Your task to perform on an android device: turn on the 12-hour format for clock Image 0: 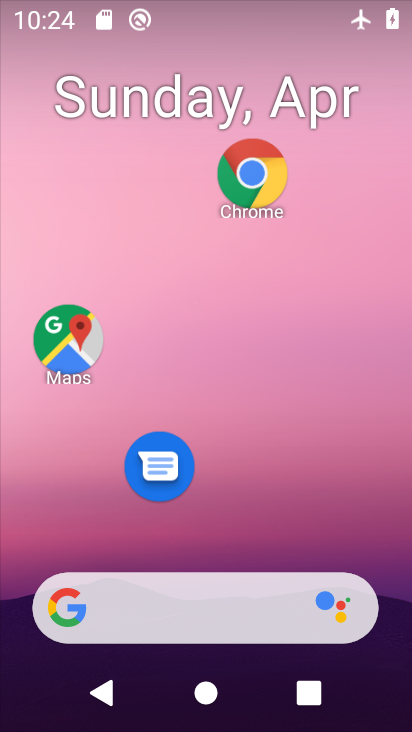
Step 0: drag from (384, 508) to (405, 205)
Your task to perform on an android device: turn on the 12-hour format for clock Image 1: 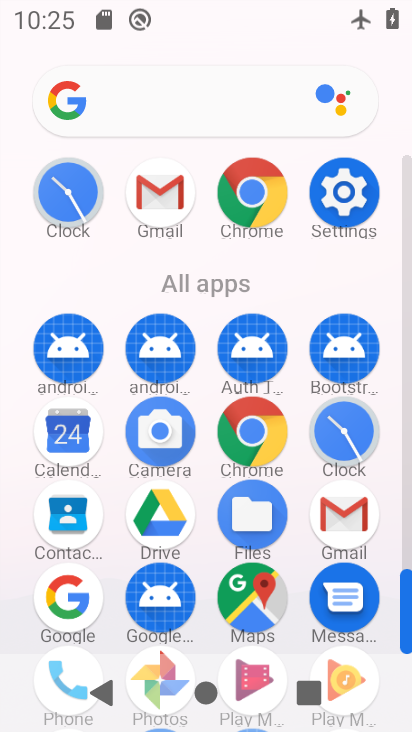
Step 1: click (355, 192)
Your task to perform on an android device: turn on the 12-hour format for clock Image 2: 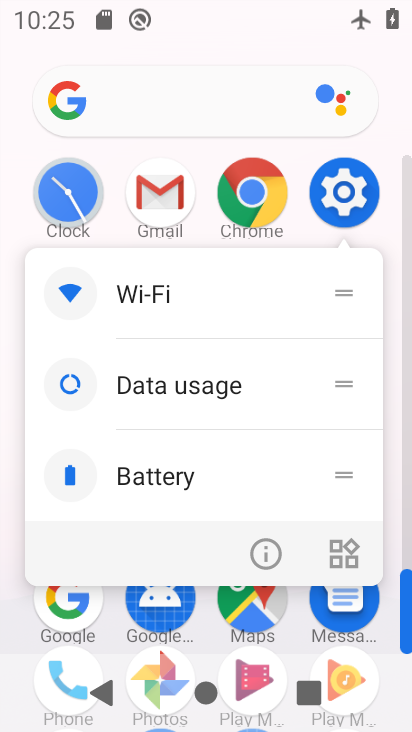
Step 2: click (355, 191)
Your task to perform on an android device: turn on the 12-hour format for clock Image 3: 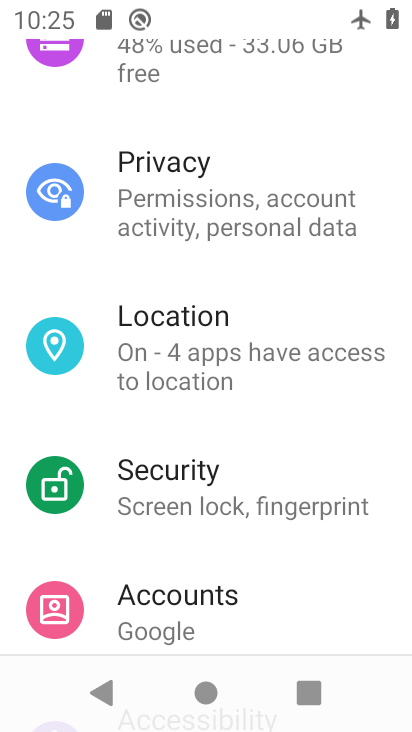
Step 3: drag from (271, 611) to (278, 159)
Your task to perform on an android device: turn on the 12-hour format for clock Image 4: 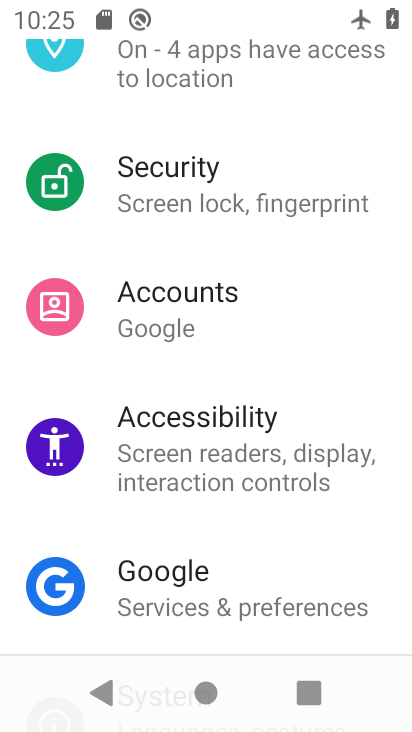
Step 4: drag from (221, 447) to (225, 137)
Your task to perform on an android device: turn on the 12-hour format for clock Image 5: 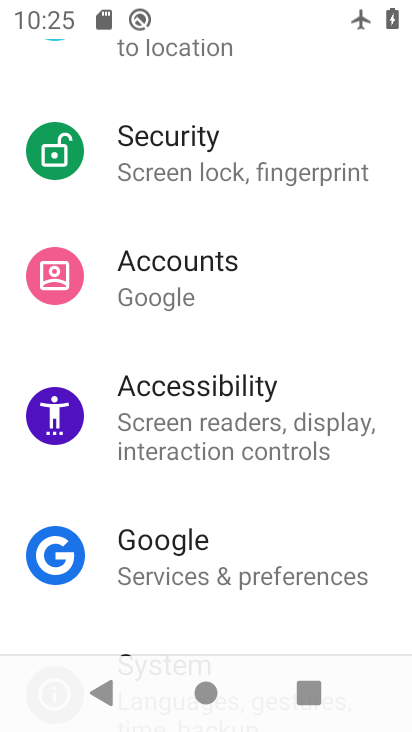
Step 5: press home button
Your task to perform on an android device: turn on the 12-hour format for clock Image 6: 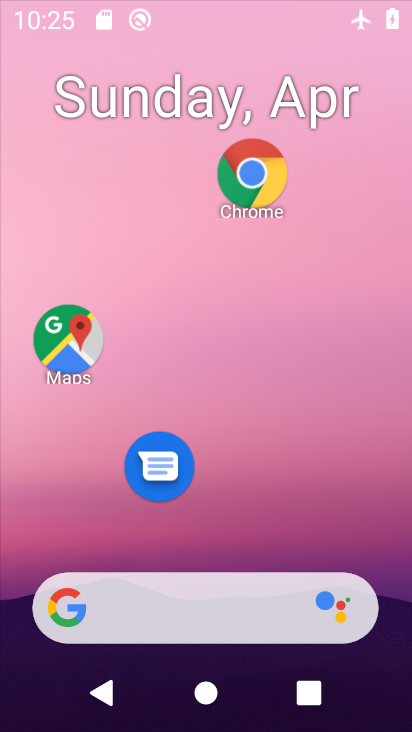
Step 6: drag from (343, 507) to (409, 27)
Your task to perform on an android device: turn on the 12-hour format for clock Image 7: 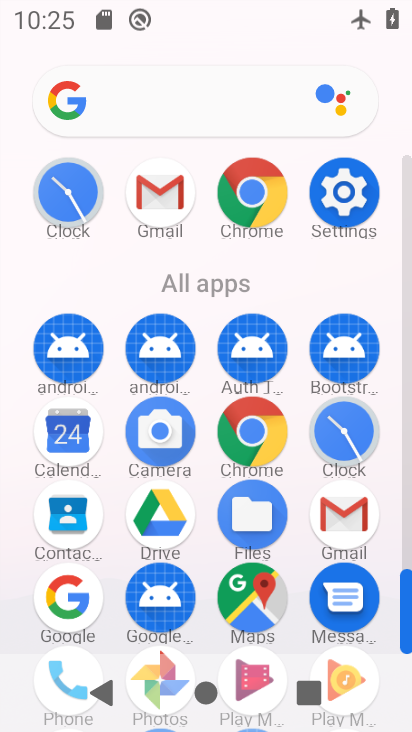
Step 7: click (341, 428)
Your task to perform on an android device: turn on the 12-hour format for clock Image 8: 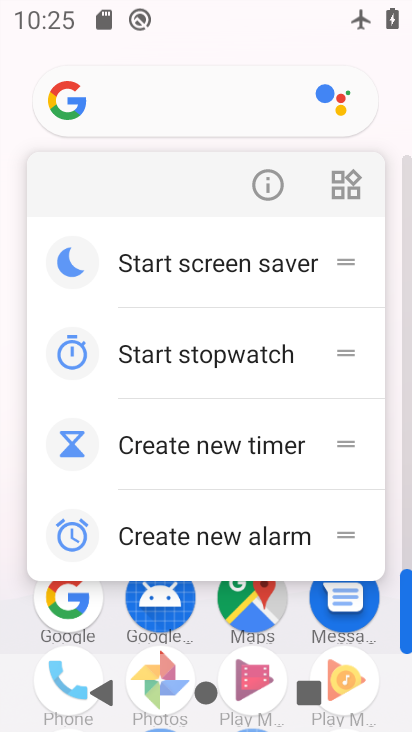
Step 8: press back button
Your task to perform on an android device: turn on the 12-hour format for clock Image 9: 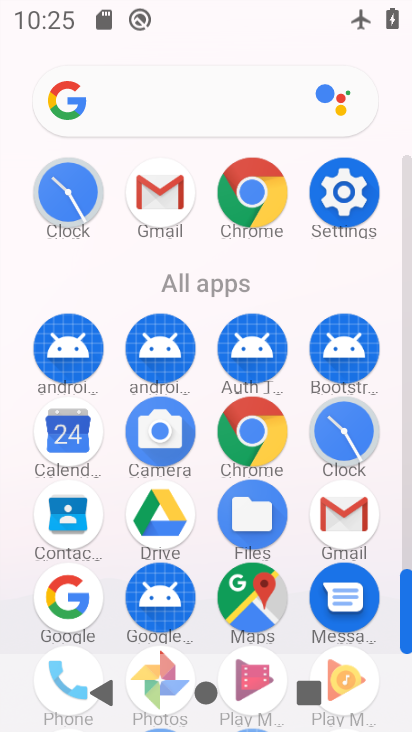
Step 9: click (353, 431)
Your task to perform on an android device: turn on the 12-hour format for clock Image 10: 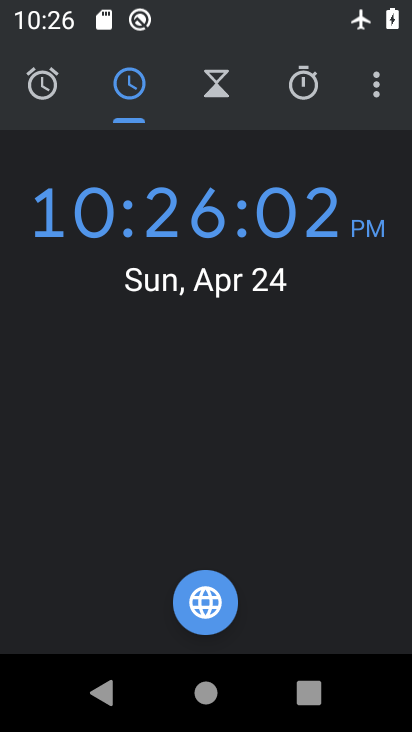
Step 10: click (392, 97)
Your task to perform on an android device: turn on the 12-hour format for clock Image 11: 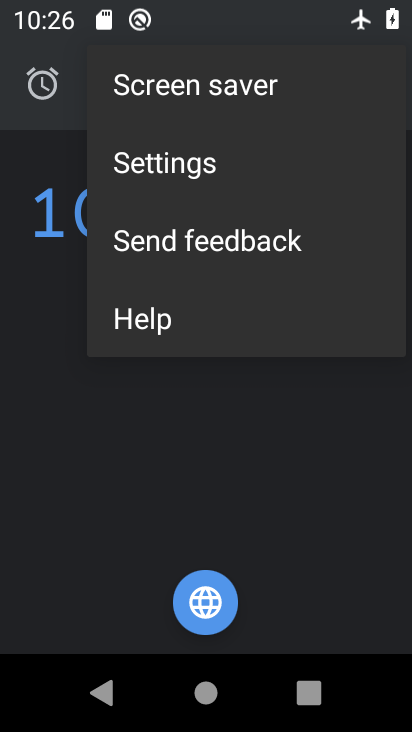
Step 11: click (149, 178)
Your task to perform on an android device: turn on the 12-hour format for clock Image 12: 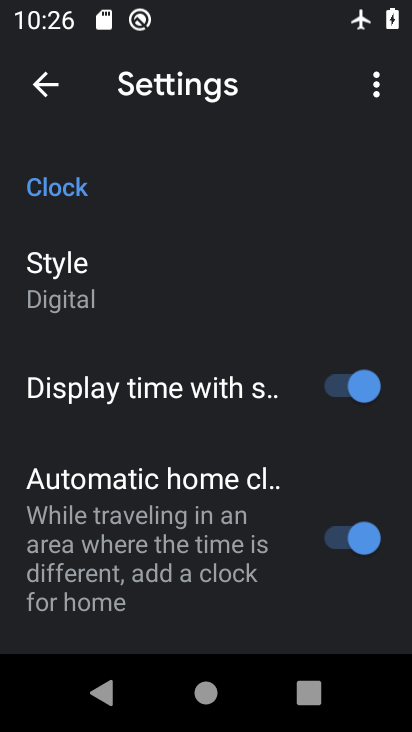
Step 12: drag from (169, 595) to (195, 184)
Your task to perform on an android device: turn on the 12-hour format for clock Image 13: 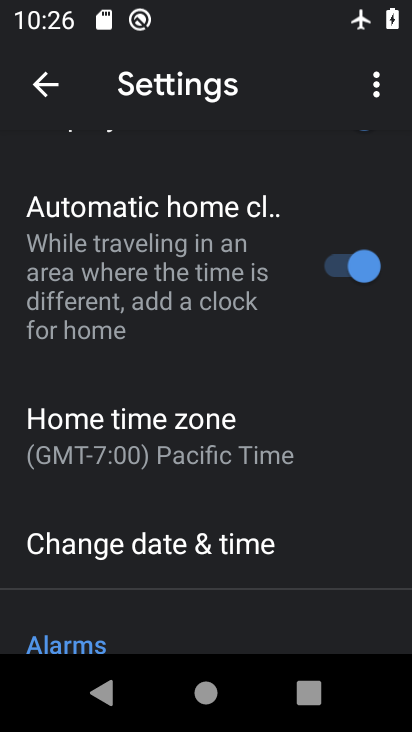
Step 13: drag from (178, 583) to (230, 195)
Your task to perform on an android device: turn on the 12-hour format for clock Image 14: 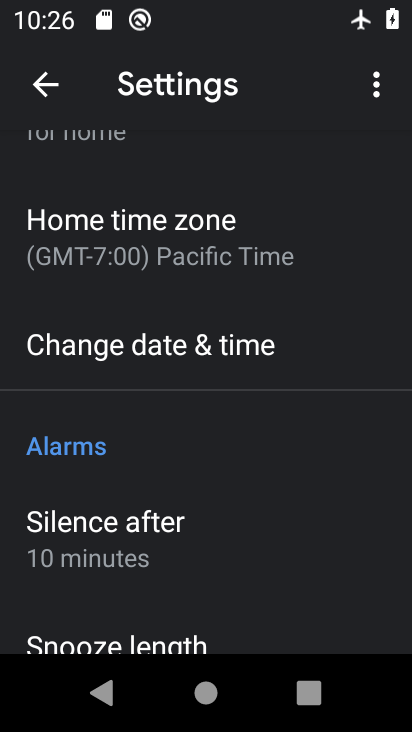
Step 14: click (146, 340)
Your task to perform on an android device: turn on the 12-hour format for clock Image 15: 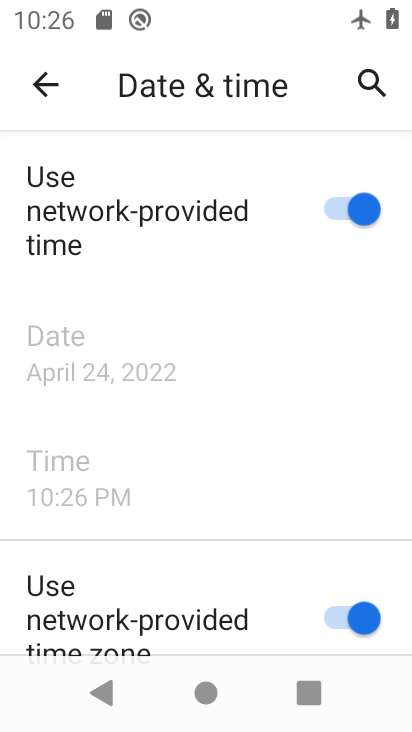
Step 15: drag from (202, 520) to (153, 134)
Your task to perform on an android device: turn on the 12-hour format for clock Image 16: 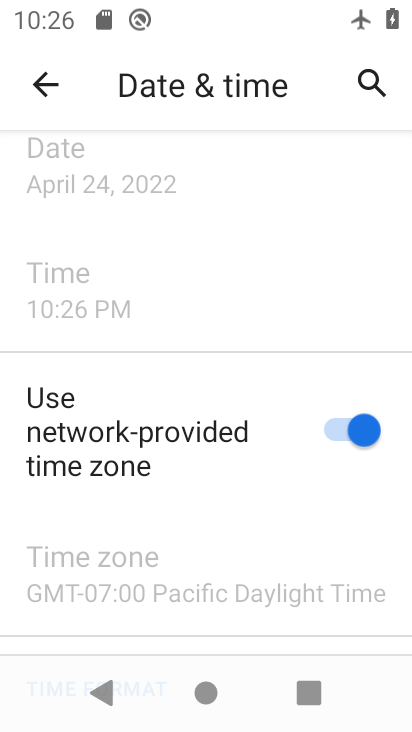
Step 16: drag from (178, 493) to (163, 90)
Your task to perform on an android device: turn on the 12-hour format for clock Image 17: 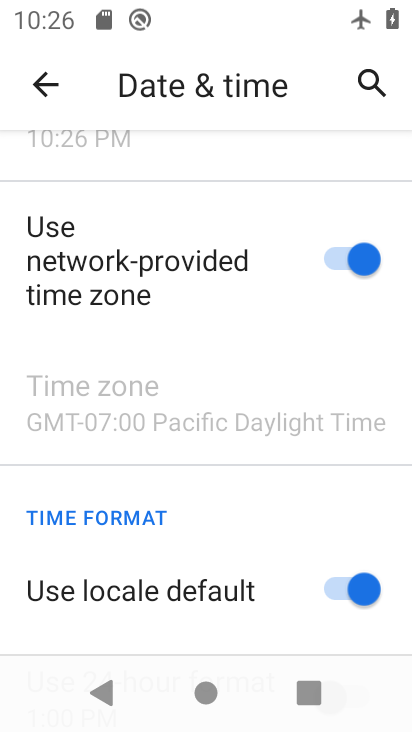
Step 17: drag from (120, 504) to (129, 171)
Your task to perform on an android device: turn on the 12-hour format for clock Image 18: 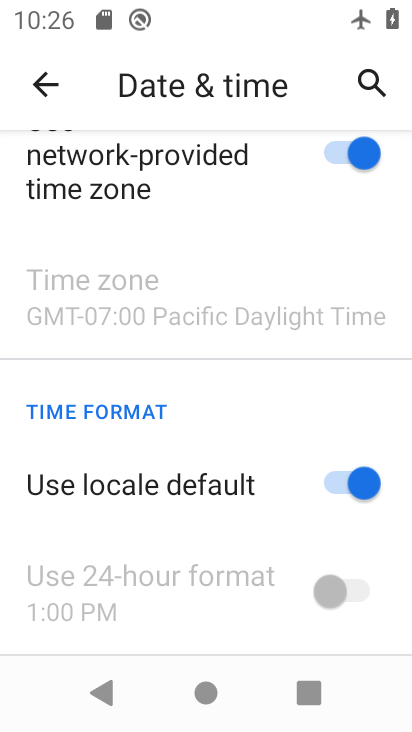
Step 18: click (351, 491)
Your task to perform on an android device: turn on the 12-hour format for clock Image 19: 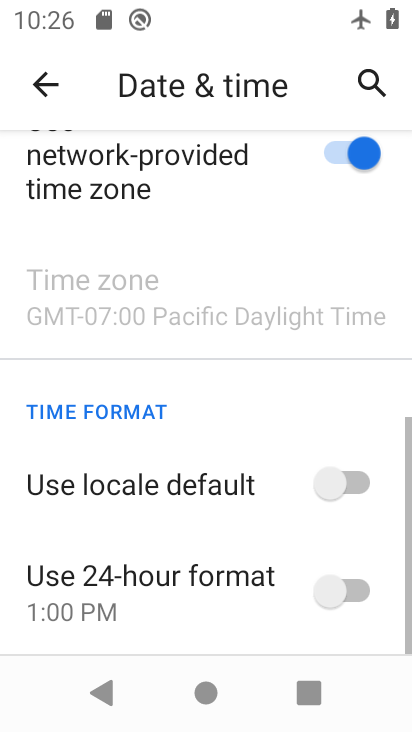
Step 19: task complete